Your task to perform on an android device: Go to Android settings Image 0: 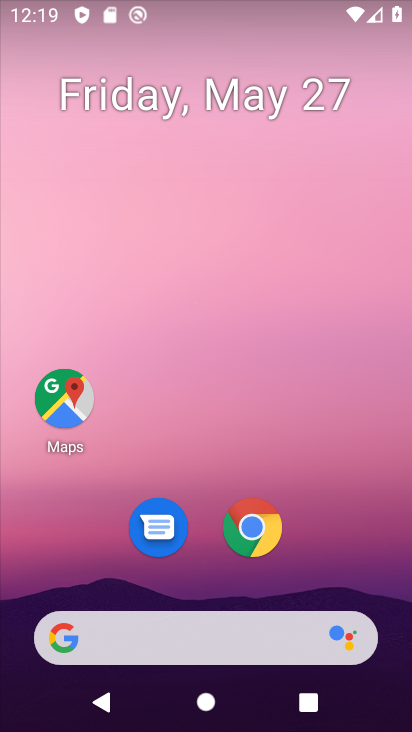
Step 0: drag from (259, 661) to (330, 156)
Your task to perform on an android device: Go to Android settings Image 1: 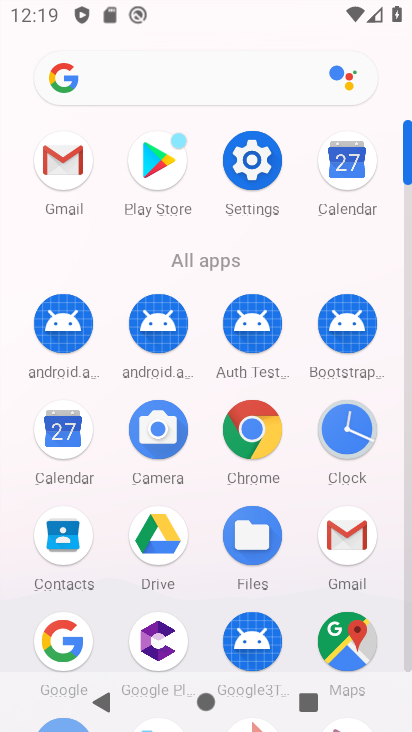
Step 1: click (260, 154)
Your task to perform on an android device: Go to Android settings Image 2: 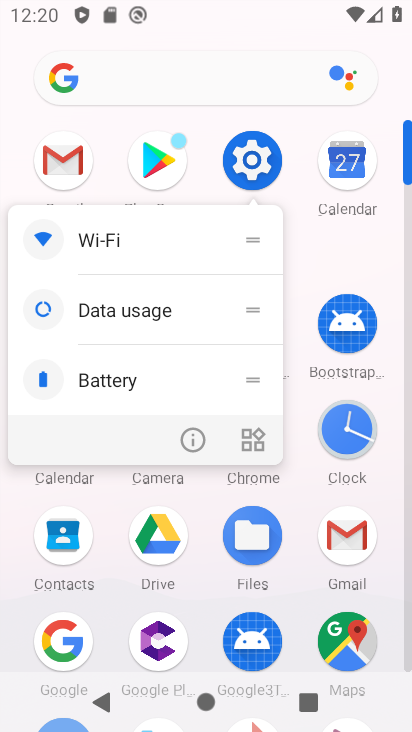
Step 2: click (260, 154)
Your task to perform on an android device: Go to Android settings Image 3: 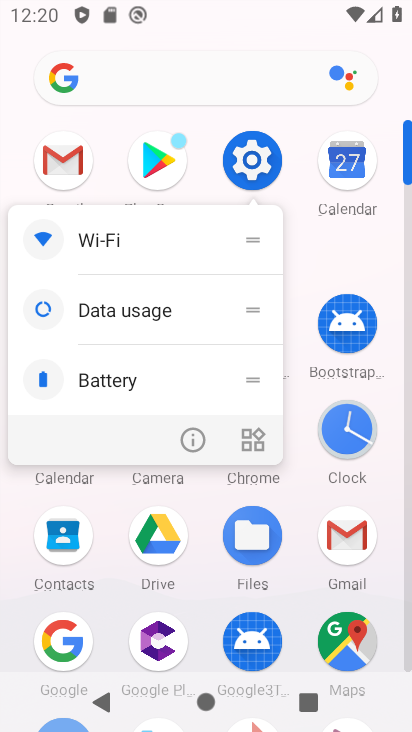
Step 3: click (260, 153)
Your task to perform on an android device: Go to Android settings Image 4: 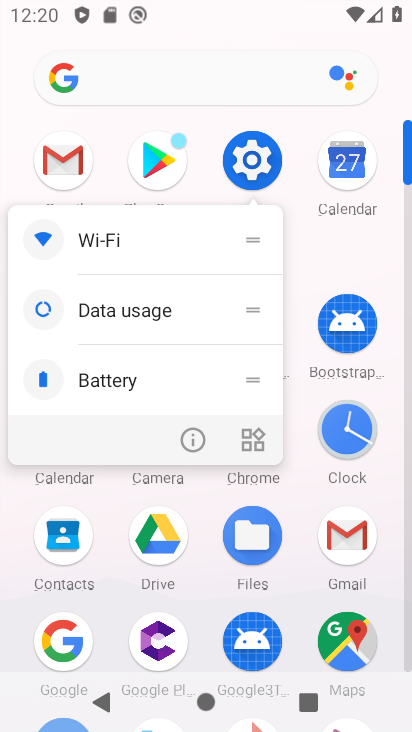
Step 4: click (260, 153)
Your task to perform on an android device: Go to Android settings Image 5: 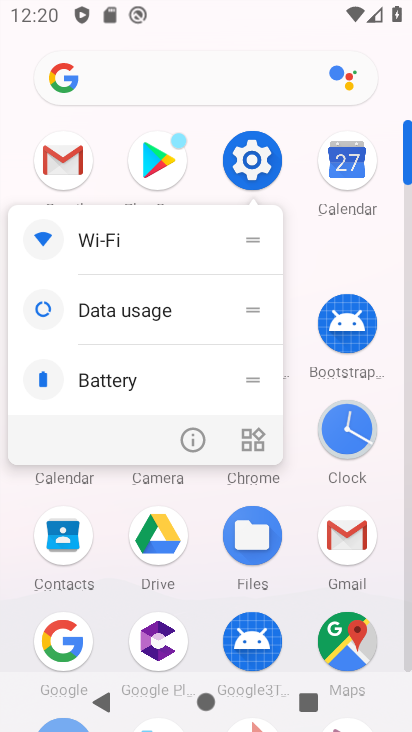
Step 5: click (260, 153)
Your task to perform on an android device: Go to Android settings Image 6: 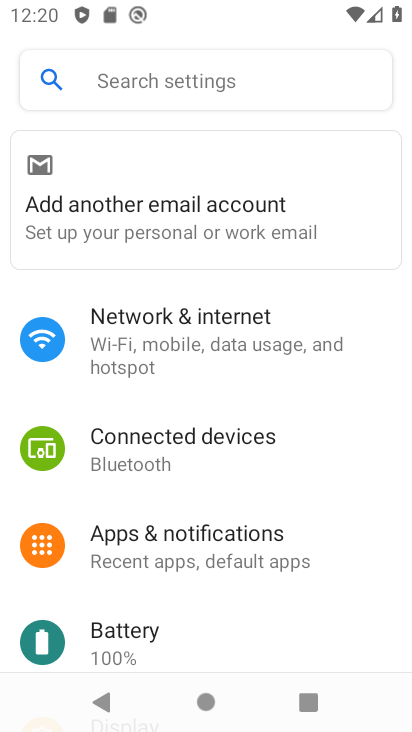
Step 6: drag from (262, 588) to (357, 4)
Your task to perform on an android device: Go to Android settings Image 7: 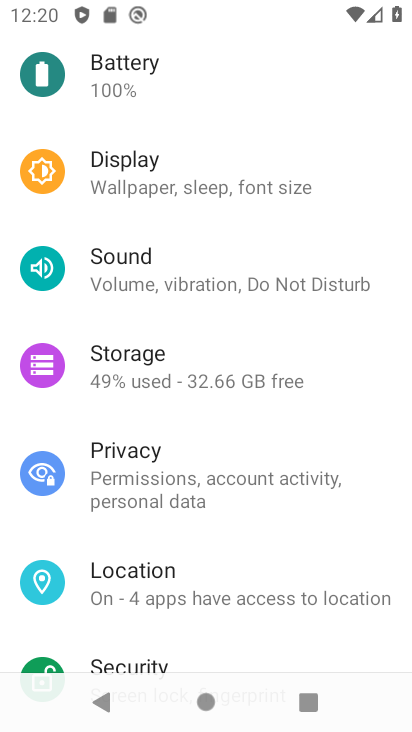
Step 7: drag from (229, 456) to (283, 9)
Your task to perform on an android device: Go to Android settings Image 8: 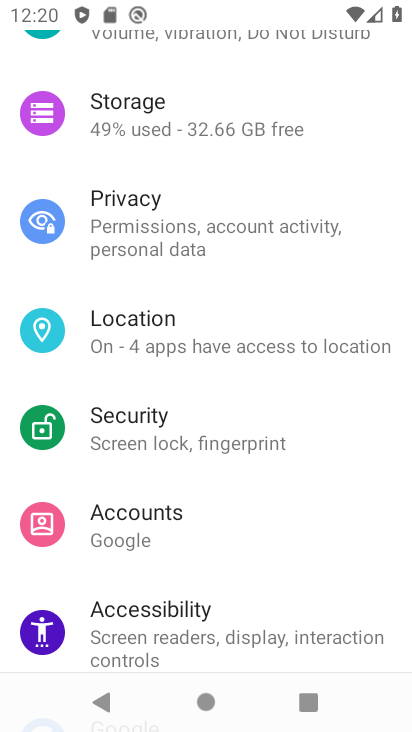
Step 8: drag from (274, 596) to (301, 105)
Your task to perform on an android device: Go to Android settings Image 9: 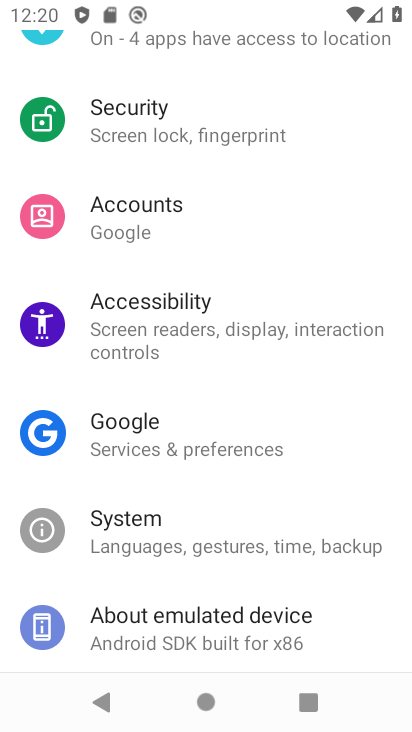
Step 9: drag from (228, 637) to (283, 131)
Your task to perform on an android device: Go to Android settings Image 10: 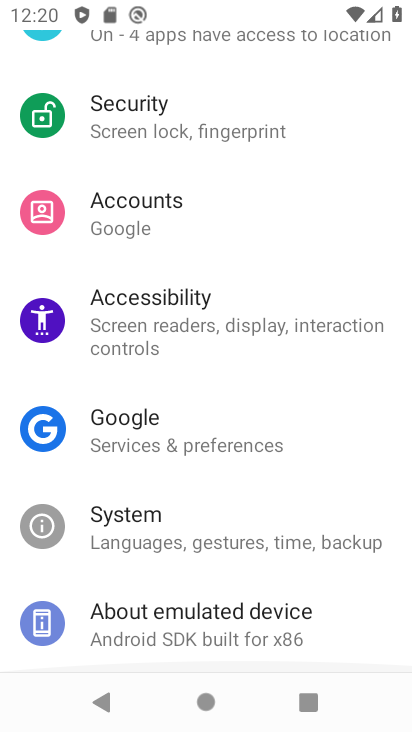
Step 10: click (299, 623)
Your task to perform on an android device: Go to Android settings Image 11: 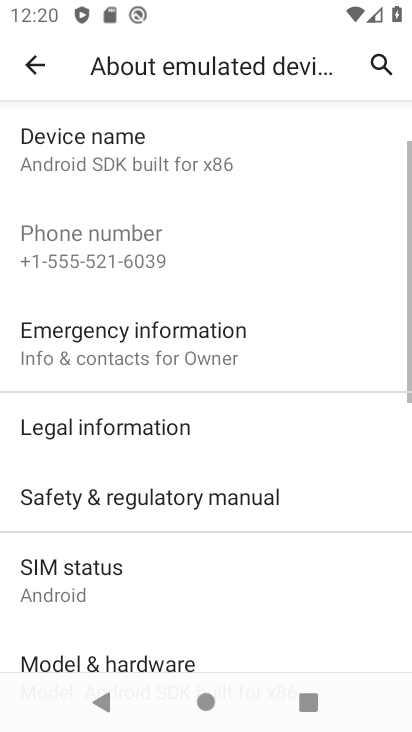
Step 11: task complete